Your task to perform on an android device: change alarm snooze length Image 0: 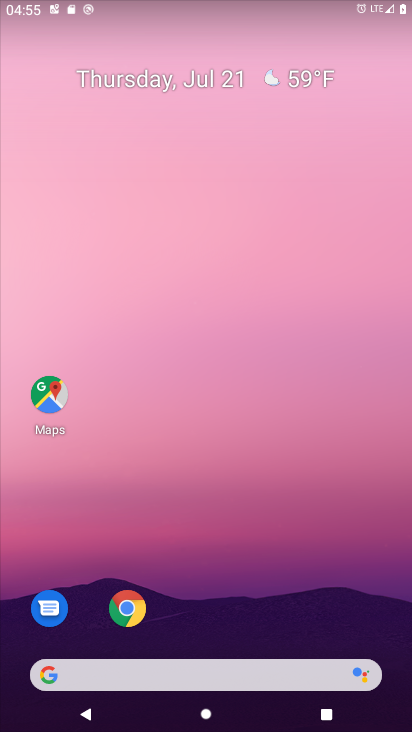
Step 0: drag from (295, 654) to (412, 414)
Your task to perform on an android device: change alarm snooze length Image 1: 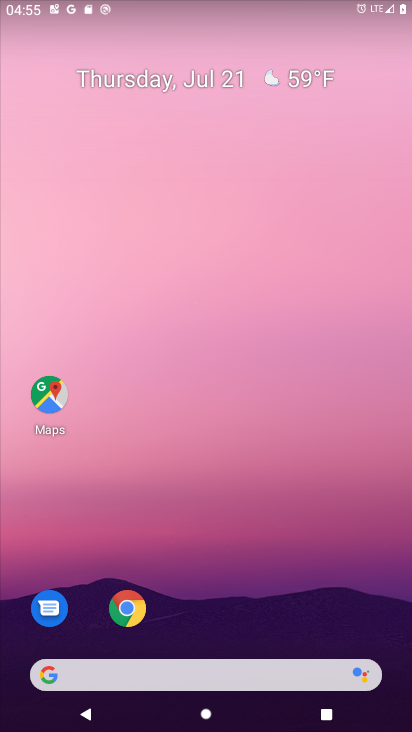
Step 1: click (210, 413)
Your task to perform on an android device: change alarm snooze length Image 2: 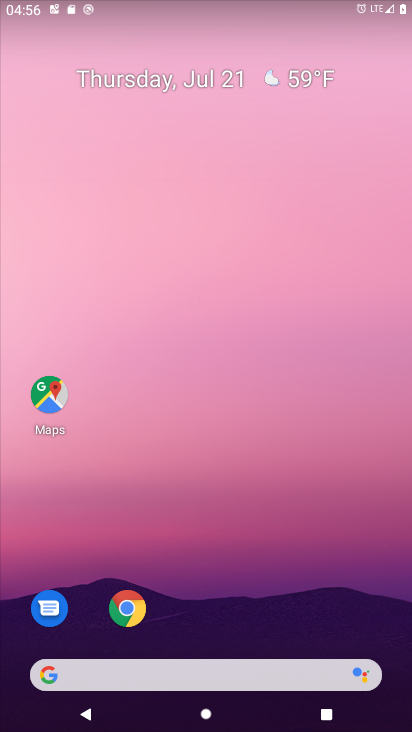
Step 2: drag from (284, 657) to (410, 657)
Your task to perform on an android device: change alarm snooze length Image 3: 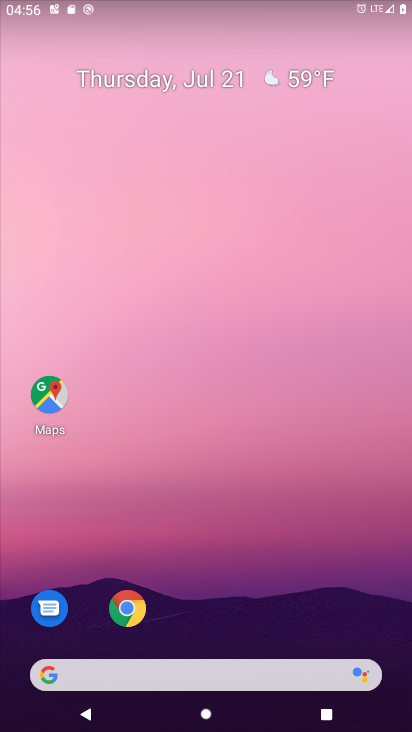
Step 3: drag from (246, 683) to (263, 14)
Your task to perform on an android device: change alarm snooze length Image 4: 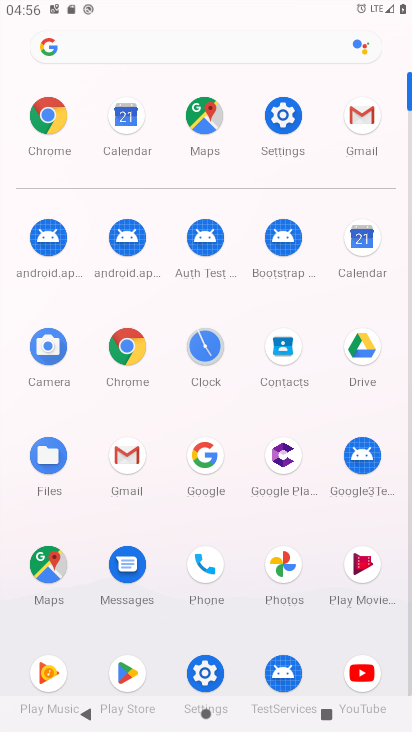
Step 4: click (202, 331)
Your task to perform on an android device: change alarm snooze length Image 5: 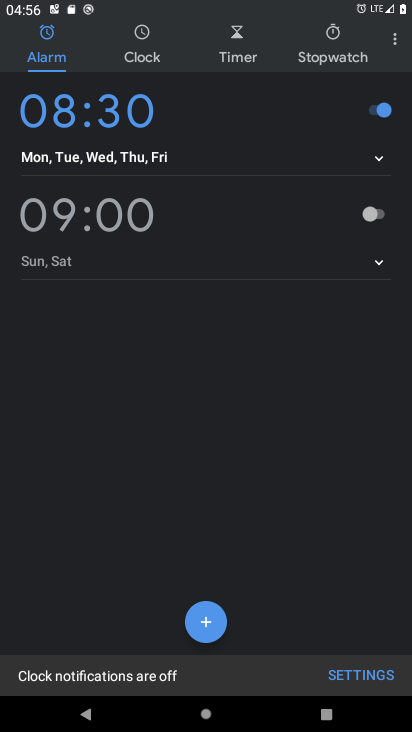
Step 5: drag from (400, 35) to (324, 96)
Your task to perform on an android device: change alarm snooze length Image 6: 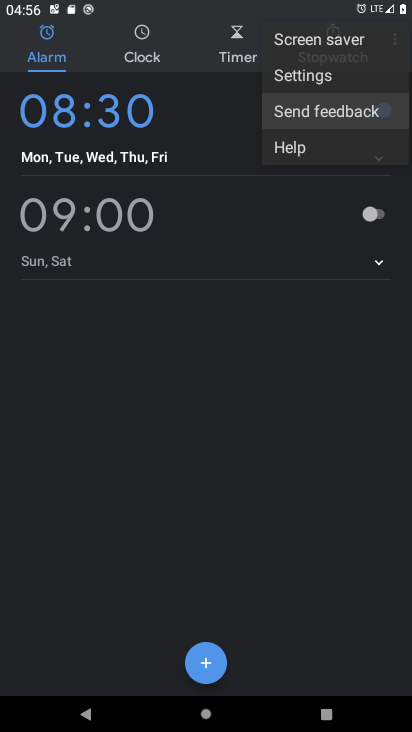
Step 6: click (323, 75)
Your task to perform on an android device: change alarm snooze length Image 7: 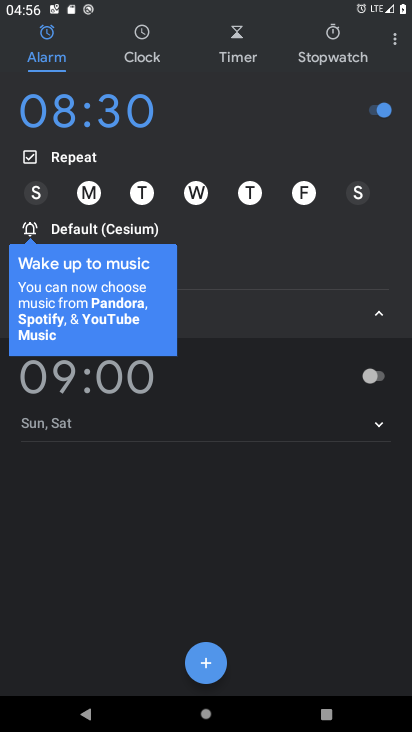
Step 7: click (390, 37)
Your task to perform on an android device: change alarm snooze length Image 8: 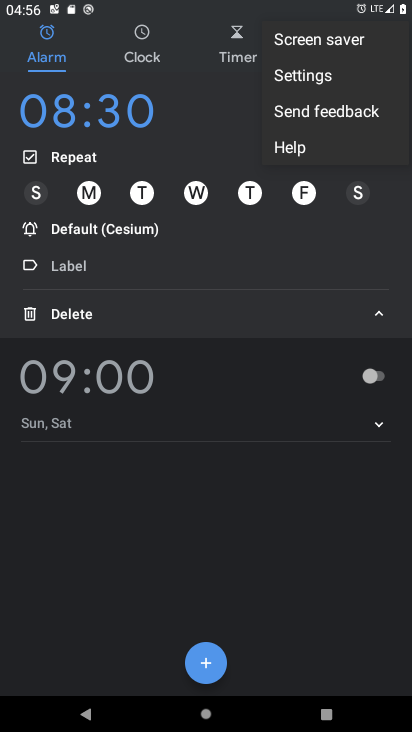
Step 8: click (338, 71)
Your task to perform on an android device: change alarm snooze length Image 9: 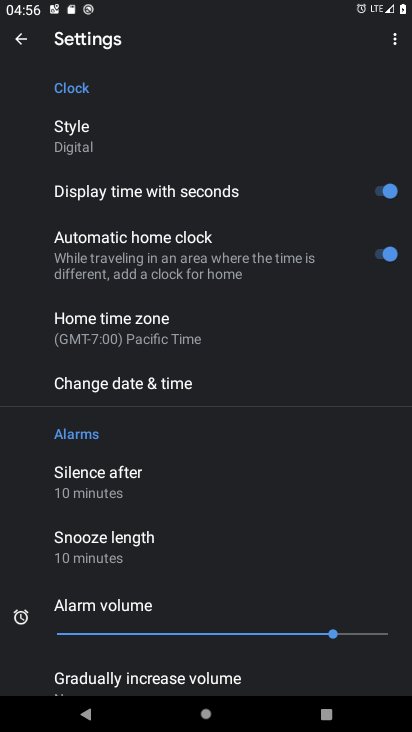
Step 9: click (120, 545)
Your task to perform on an android device: change alarm snooze length Image 10: 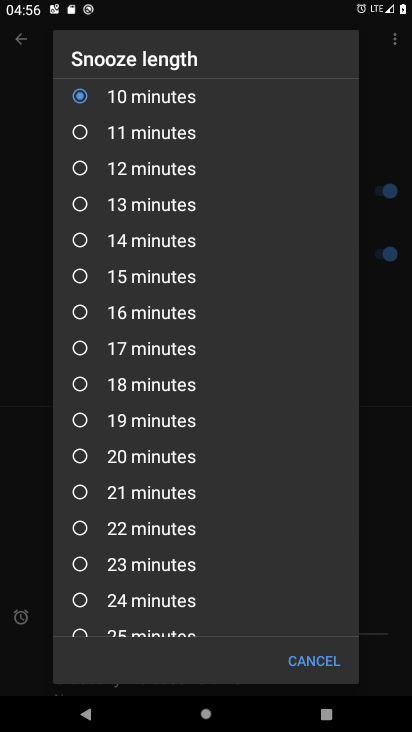
Step 10: click (87, 169)
Your task to perform on an android device: change alarm snooze length Image 11: 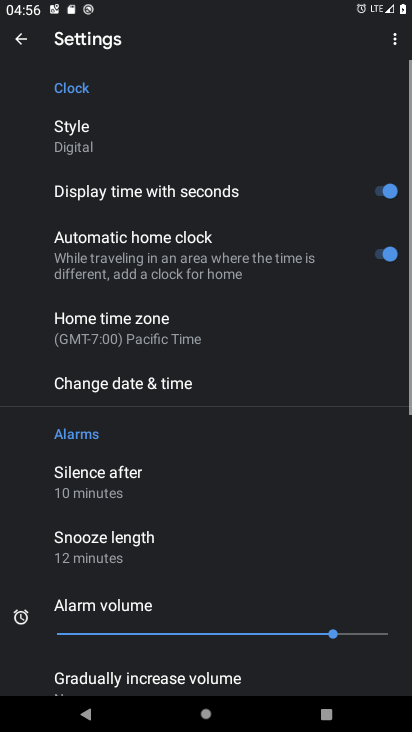
Step 11: task complete